Your task to perform on an android device: Search for pizza restaurants on Maps Image 0: 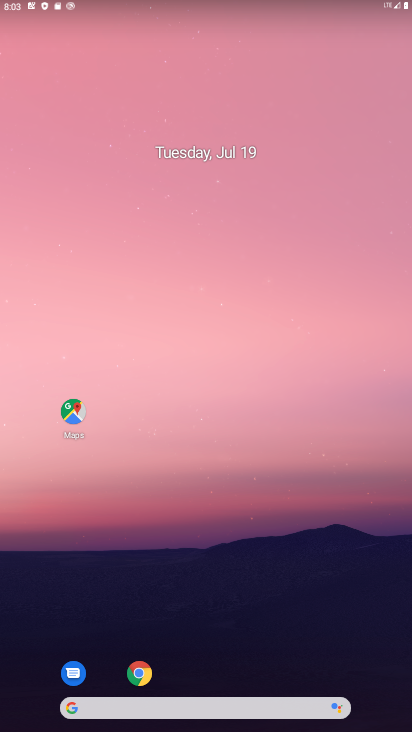
Step 0: drag from (371, 673) to (164, 2)
Your task to perform on an android device: Search for pizza restaurants on Maps Image 1: 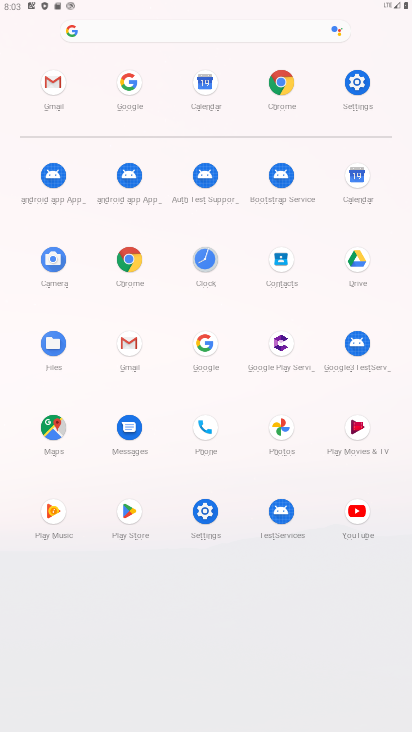
Step 1: click (48, 428)
Your task to perform on an android device: Search for pizza restaurants on Maps Image 2: 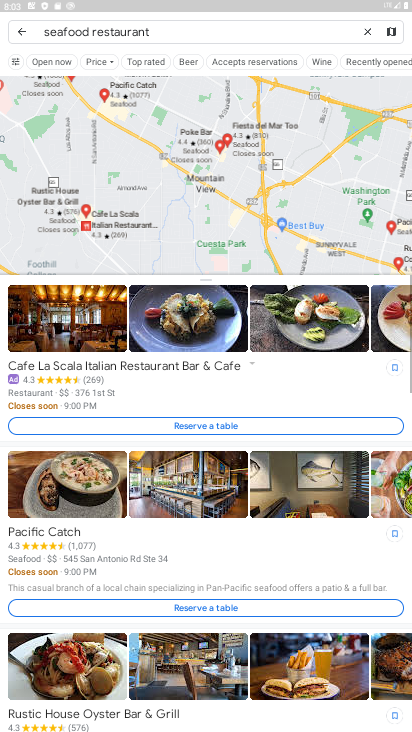
Step 2: click (372, 33)
Your task to perform on an android device: Search for pizza restaurants on Maps Image 3: 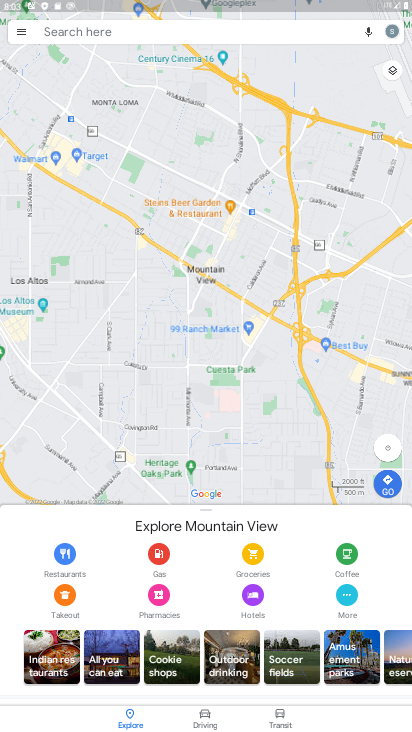
Step 3: click (92, 31)
Your task to perform on an android device: Search for pizza restaurants on Maps Image 4: 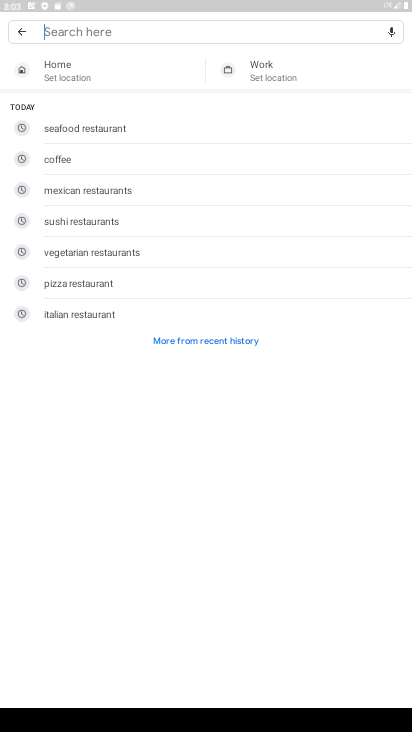
Step 4: click (78, 284)
Your task to perform on an android device: Search for pizza restaurants on Maps Image 5: 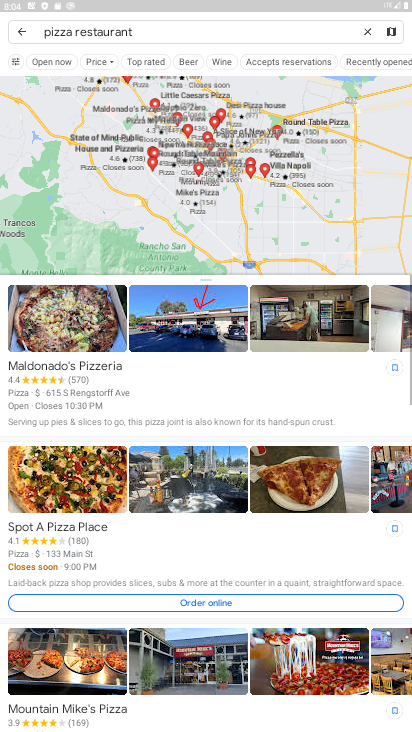
Step 5: task complete